Your task to perform on an android device: see sites visited before in the chrome app Image 0: 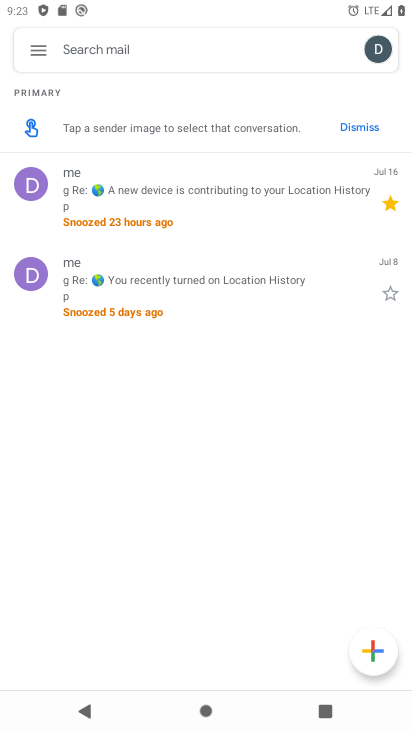
Step 0: press home button
Your task to perform on an android device: see sites visited before in the chrome app Image 1: 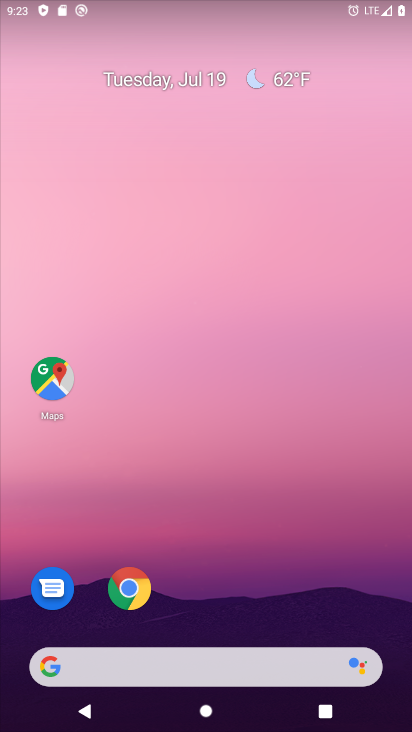
Step 1: drag from (275, 546) to (265, 126)
Your task to perform on an android device: see sites visited before in the chrome app Image 2: 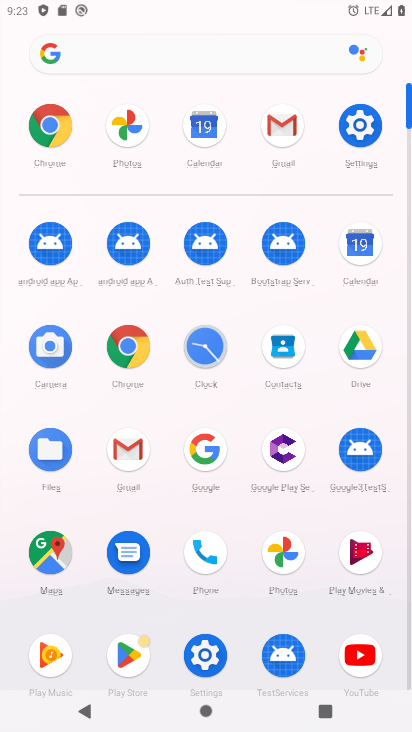
Step 2: click (63, 133)
Your task to perform on an android device: see sites visited before in the chrome app Image 3: 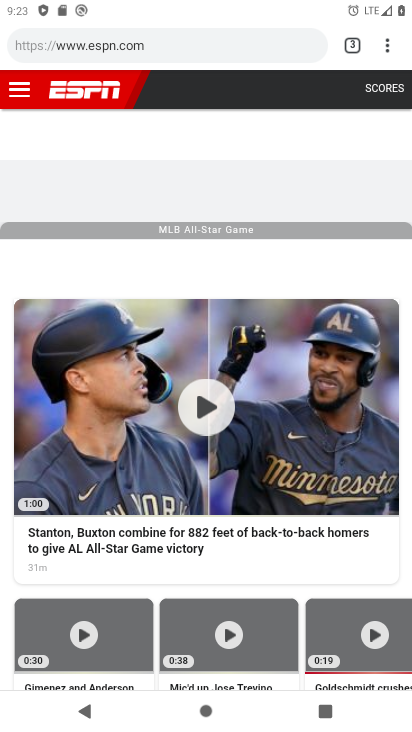
Step 3: drag from (383, 49) to (244, 218)
Your task to perform on an android device: see sites visited before in the chrome app Image 4: 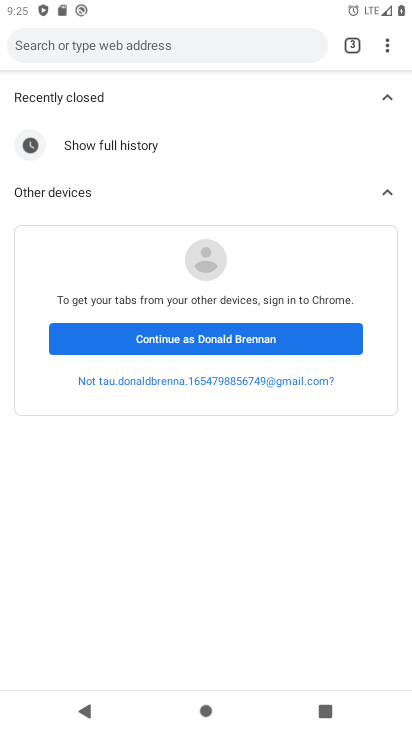
Step 4: click (197, 323)
Your task to perform on an android device: see sites visited before in the chrome app Image 5: 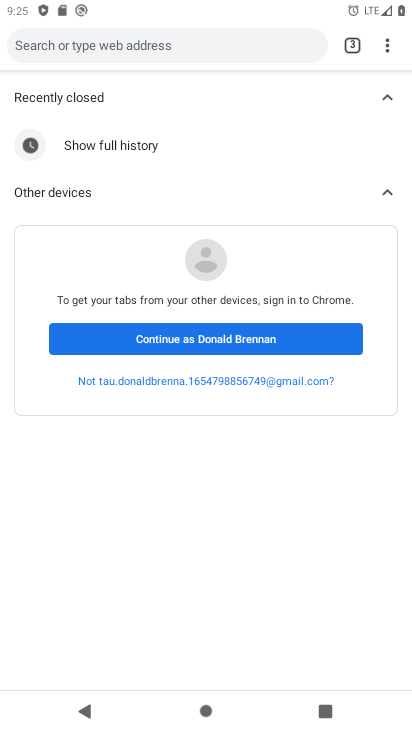
Step 5: click (203, 343)
Your task to perform on an android device: see sites visited before in the chrome app Image 6: 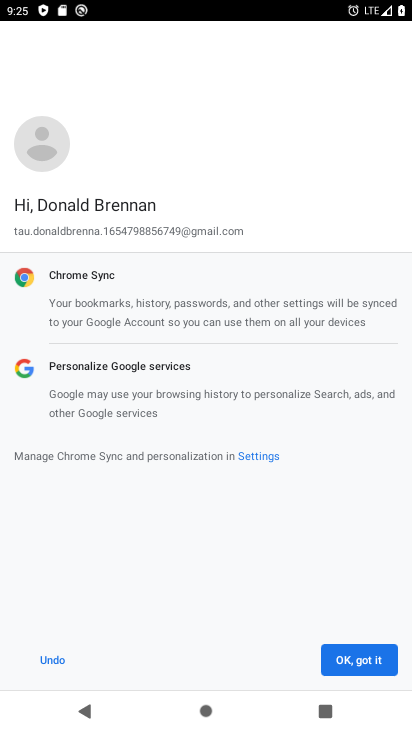
Step 6: click (353, 673)
Your task to perform on an android device: see sites visited before in the chrome app Image 7: 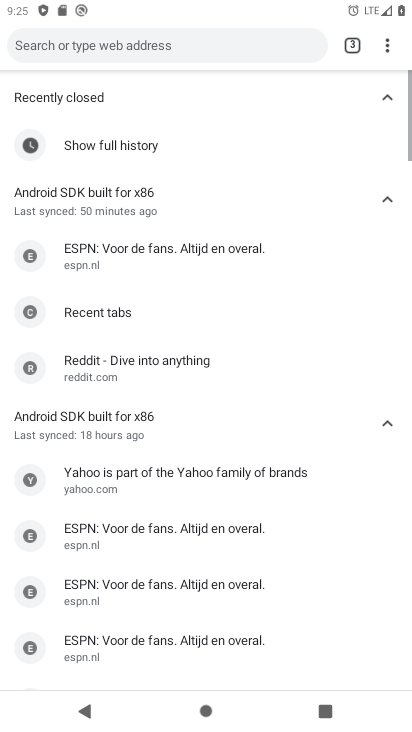
Step 7: task complete